Your task to perform on an android device: What's the news about the US stock market? Image 0: 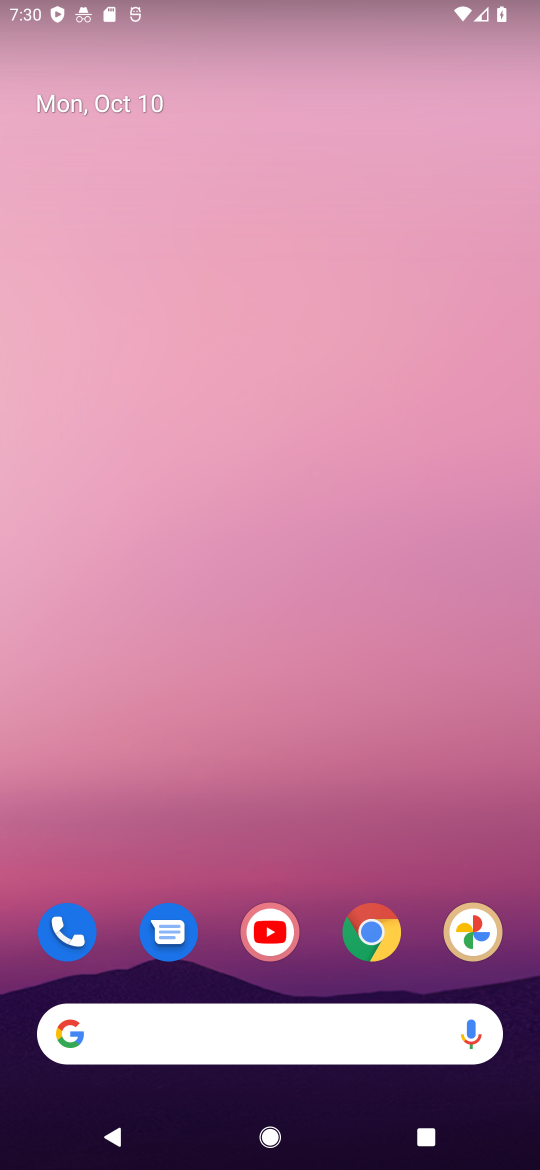
Step 0: drag from (316, 964) to (412, 102)
Your task to perform on an android device: What's the news about the US stock market? Image 1: 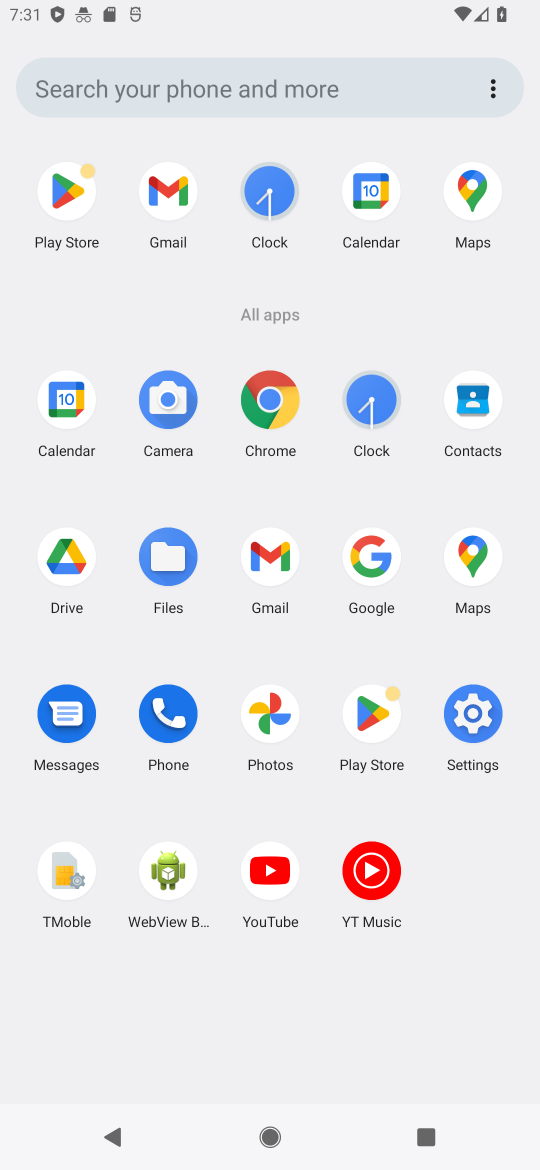
Step 1: click (268, 406)
Your task to perform on an android device: What's the news about the US stock market? Image 2: 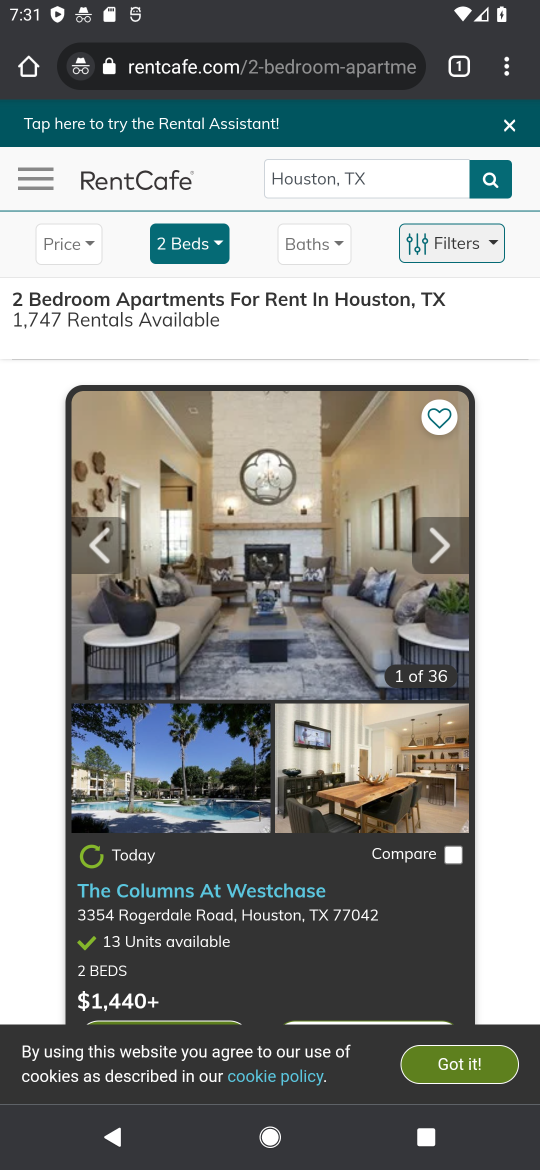
Step 2: click (314, 69)
Your task to perform on an android device: What's the news about the US stock market? Image 3: 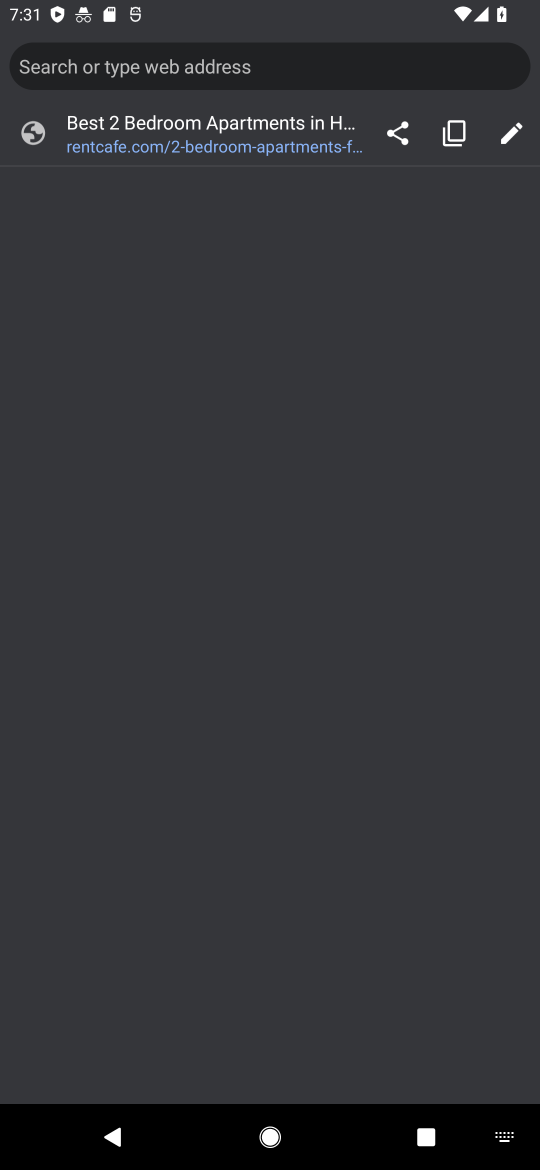
Step 3: type "What's the news about the US stock market?"
Your task to perform on an android device: What's the news about the US stock market? Image 4: 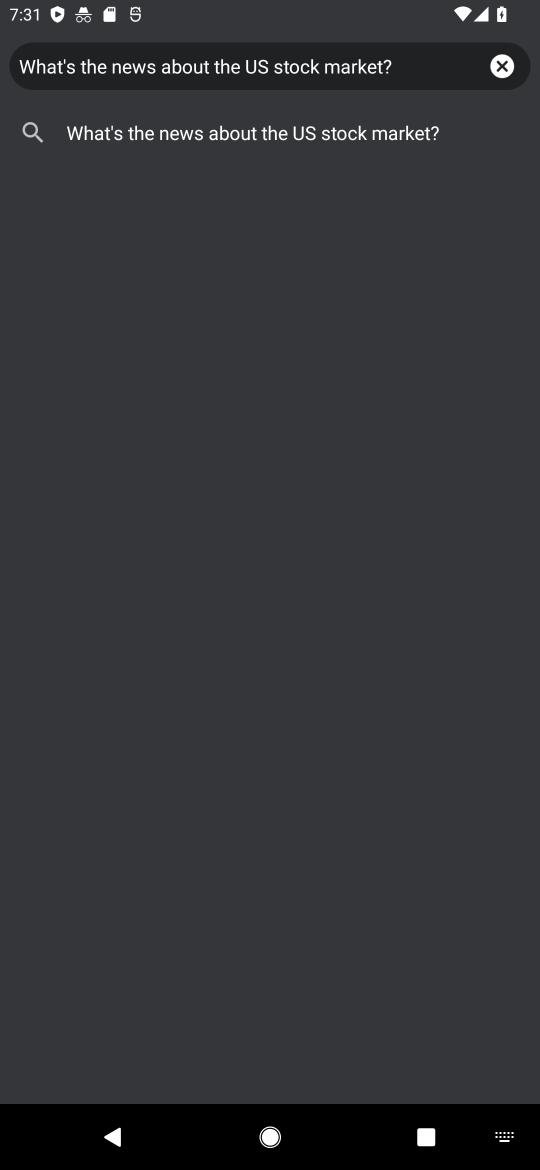
Step 4: press enter
Your task to perform on an android device: What's the news about the US stock market? Image 5: 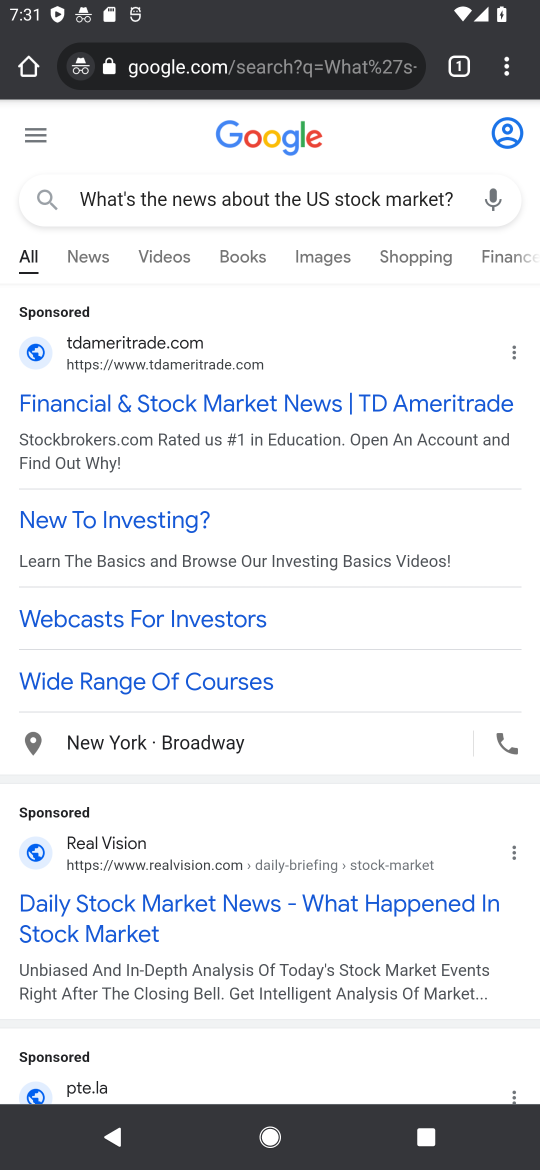
Step 5: drag from (260, 936) to (221, 348)
Your task to perform on an android device: What's the news about the US stock market? Image 6: 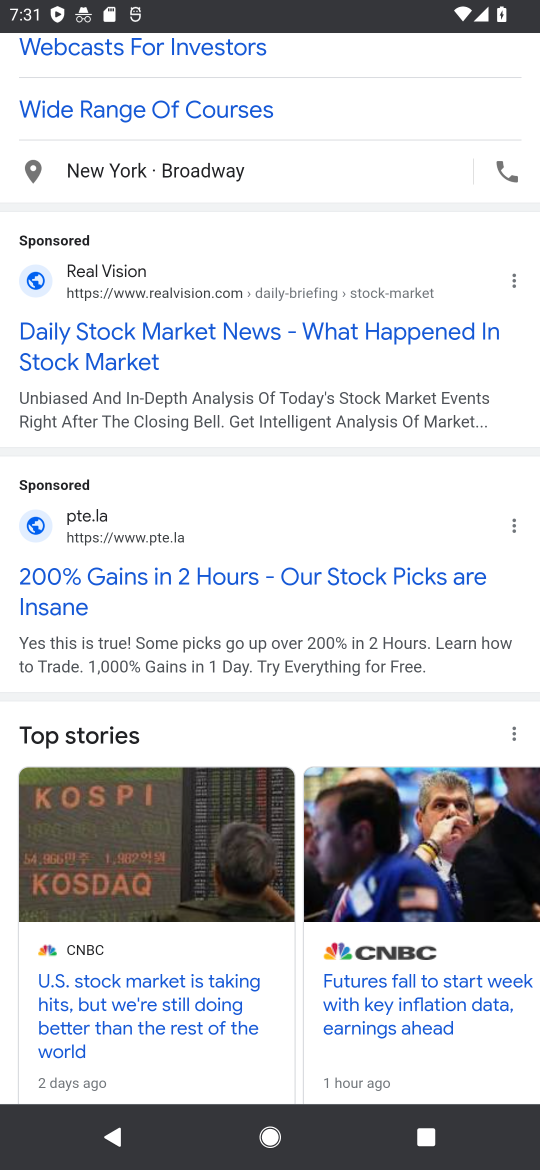
Step 6: drag from (221, 905) to (214, 283)
Your task to perform on an android device: What's the news about the US stock market? Image 7: 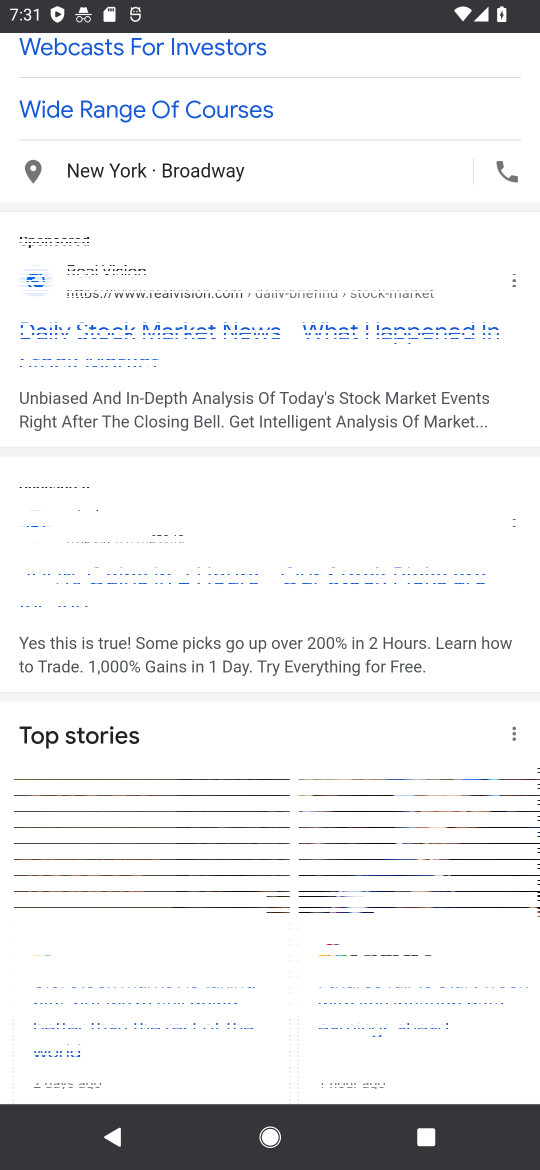
Step 7: drag from (246, 657) to (336, 284)
Your task to perform on an android device: What's the news about the US stock market? Image 8: 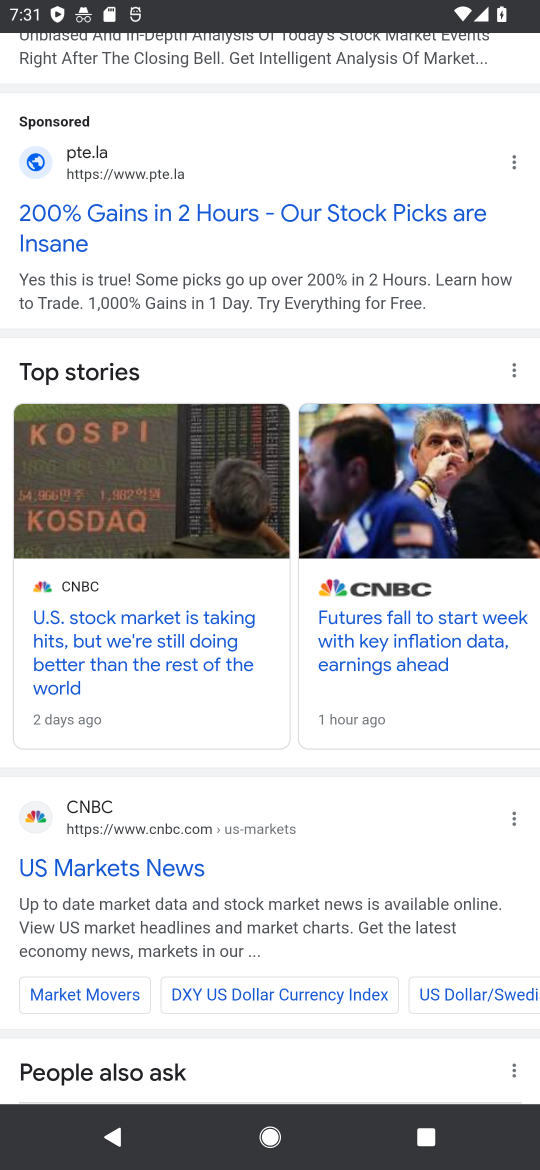
Step 8: click (191, 870)
Your task to perform on an android device: What's the news about the US stock market? Image 9: 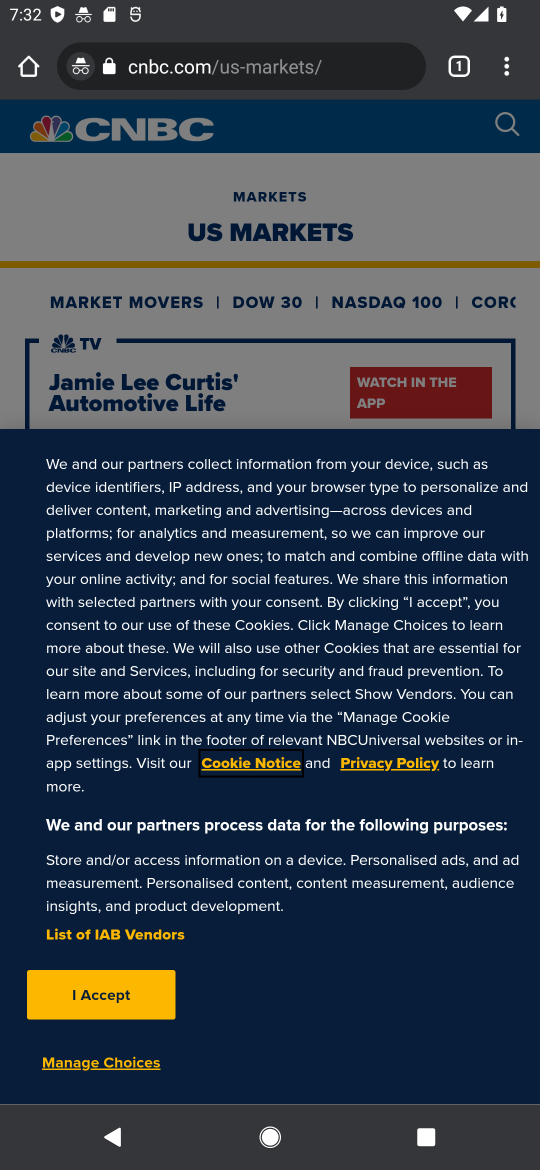
Step 9: click (66, 986)
Your task to perform on an android device: What's the news about the US stock market? Image 10: 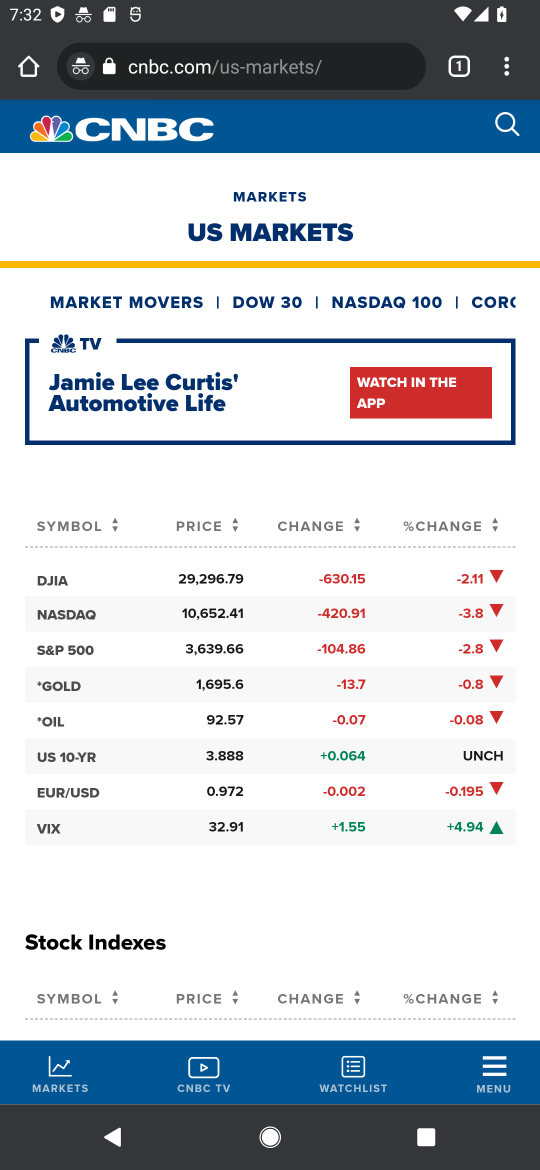
Step 10: task complete